Your task to perform on an android device: show emergency info Image 0: 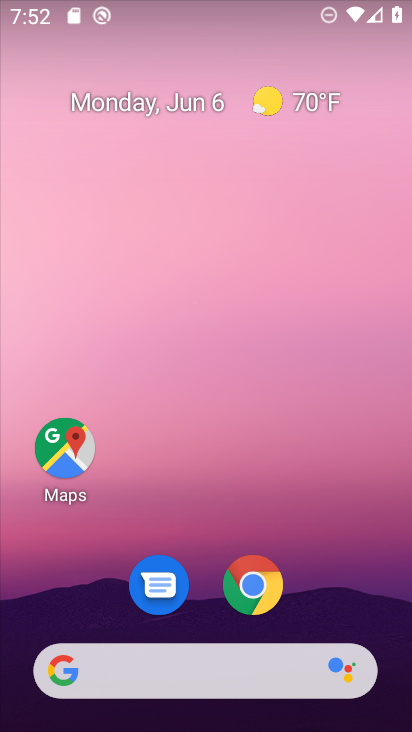
Step 0: drag from (216, 467) to (227, 19)
Your task to perform on an android device: show emergency info Image 1: 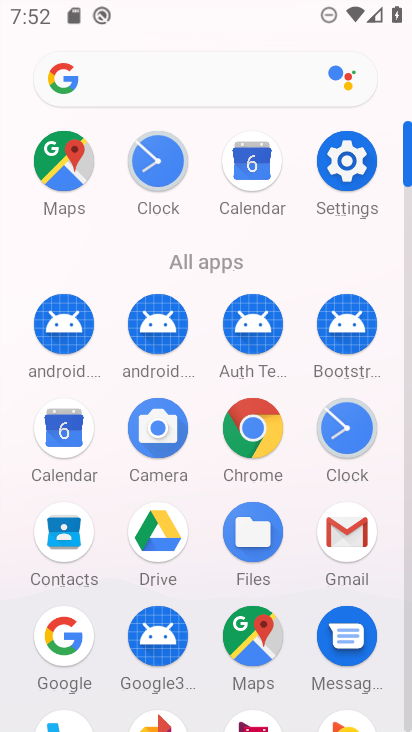
Step 1: click (336, 179)
Your task to perform on an android device: show emergency info Image 2: 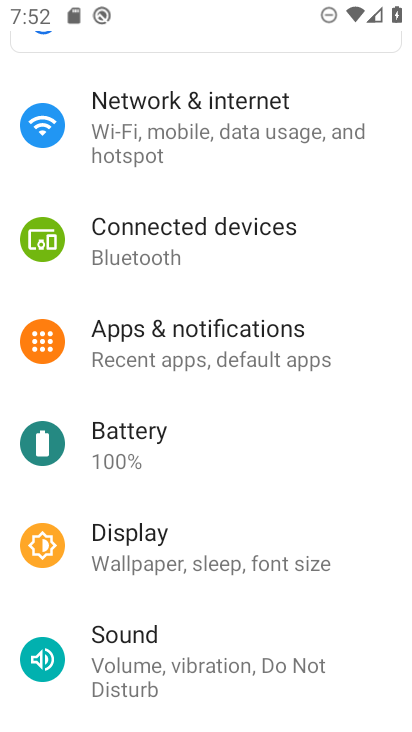
Step 2: drag from (203, 506) to (265, 5)
Your task to perform on an android device: show emergency info Image 3: 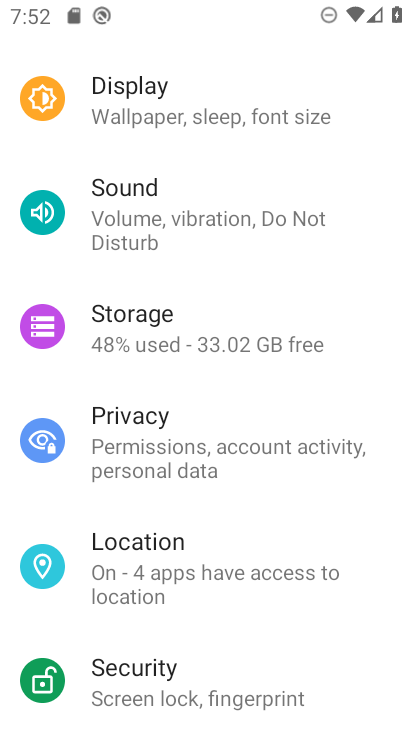
Step 3: drag from (234, 504) to (233, 55)
Your task to perform on an android device: show emergency info Image 4: 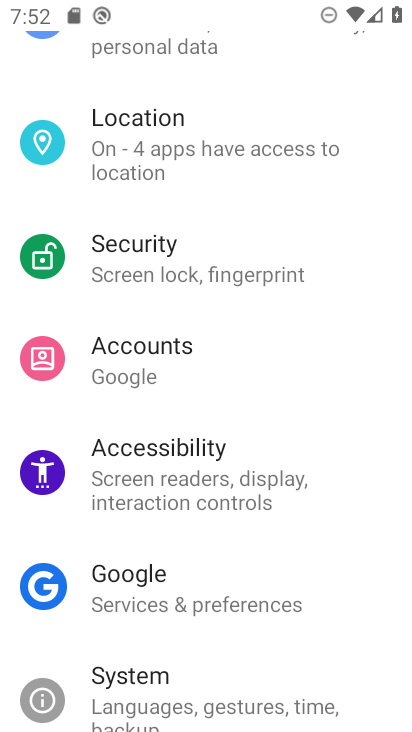
Step 4: drag from (218, 393) to (238, 25)
Your task to perform on an android device: show emergency info Image 5: 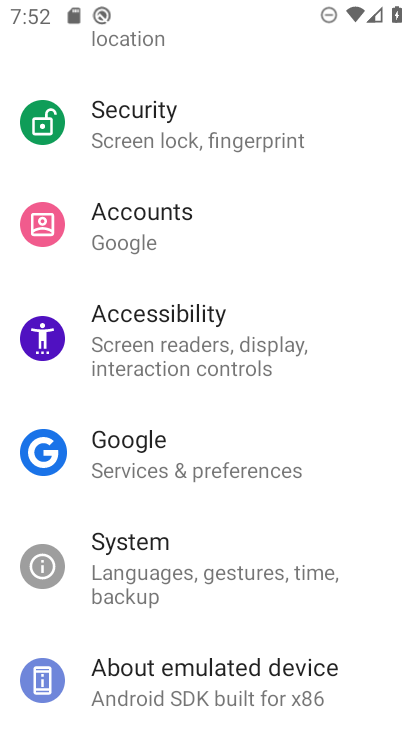
Step 5: click (221, 675)
Your task to perform on an android device: show emergency info Image 6: 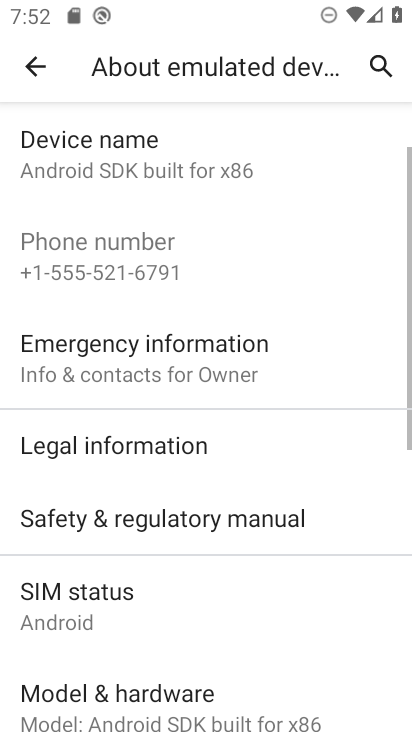
Step 6: click (212, 368)
Your task to perform on an android device: show emergency info Image 7: 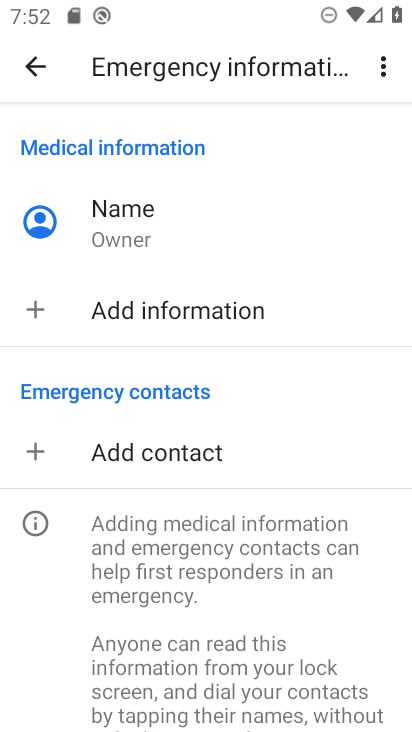
Step 7: task complete